Your task to perform on an android device: open chrome privacy settings Image 0: 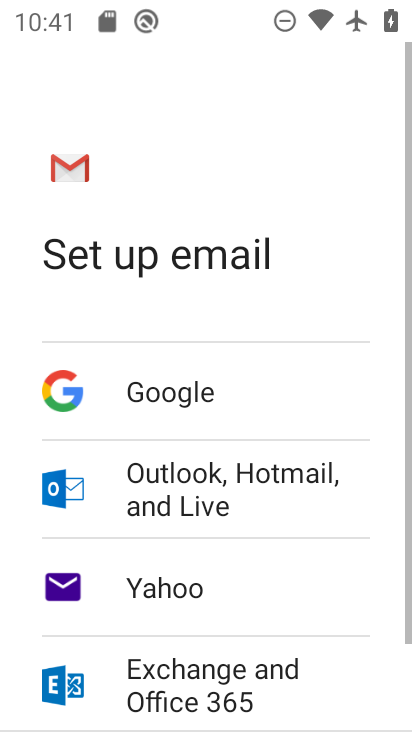
Step 0: press home button
Your task to perform on an android device: open chrome privacy settings Image 1: 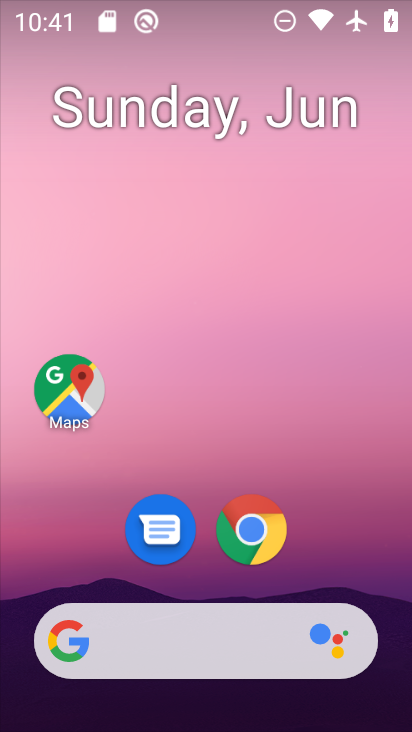
Step 1: click (251, 531)
Your task to perform on an android device: open chrome privacy settings Image 2: 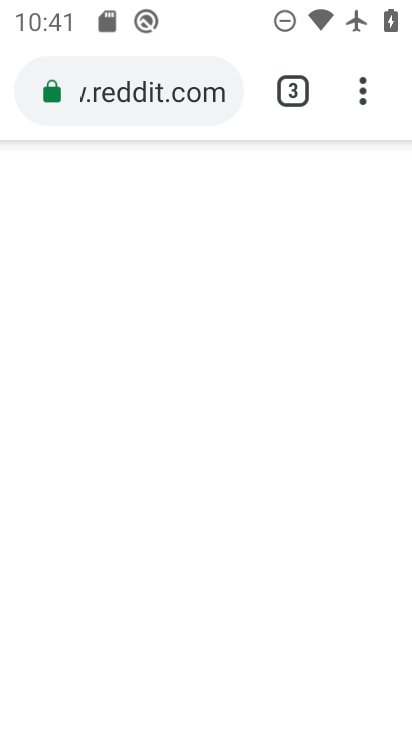
Step 2: click (361, 102)
Your task to perform on an android device: open chrome privacy settings Image 3: 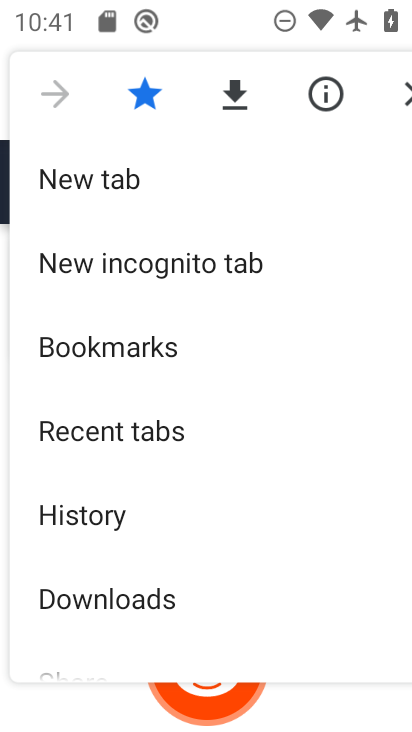
Step 3: drag from (223, 582) to (258, 165)
Your task to perform on an android device: open chrome privacy settings Image 4: 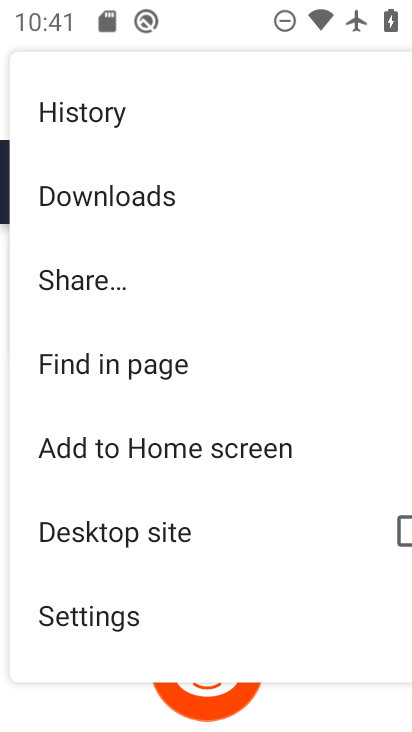
Step 4: click (87, 601)
Your task to perform on an android device: open chrome privacy settings Image 5: 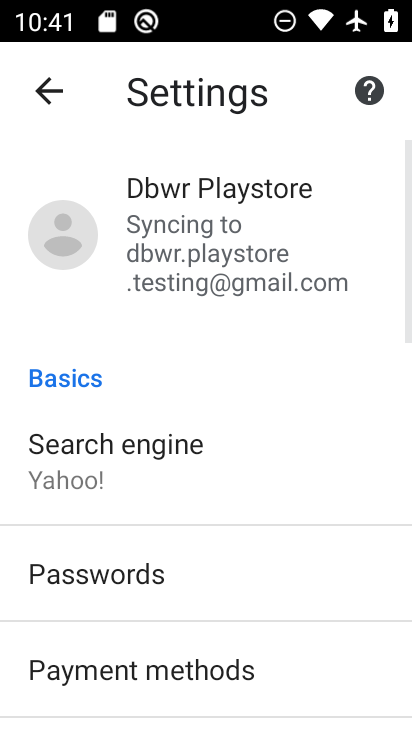
Step 5: drag from (292, 648) to (250, 235)
Your task to perform on an android device: open chrome privacy settings Image 6: 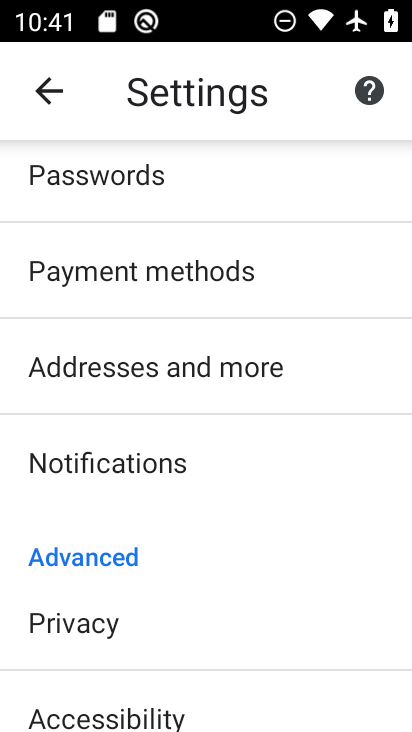
Step 6: drag from (231, 652) to (272, 289)
Your task to perform on an android device: open chrome privacy settings Image 7: 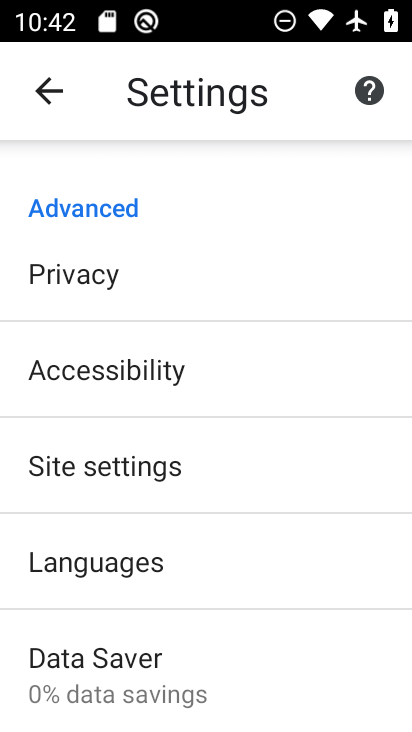
Step 7: click (77, 275)
Your task to perform on an android device: open chrome privacy settings Image 8: 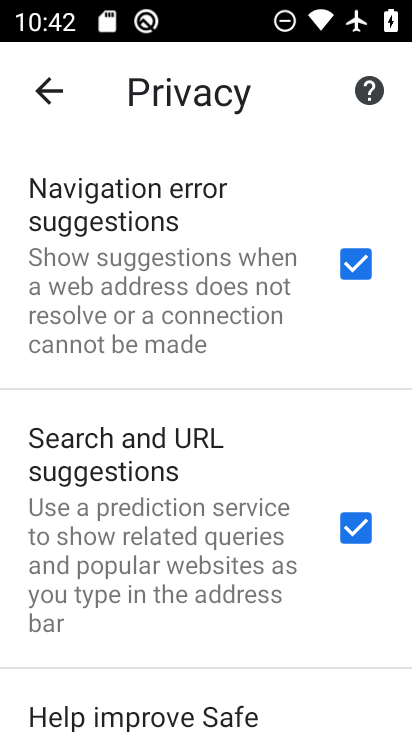
Step 8: task complete